Your task to perform on an android device: Open the phone app and click the voicemail tab. Image 0: 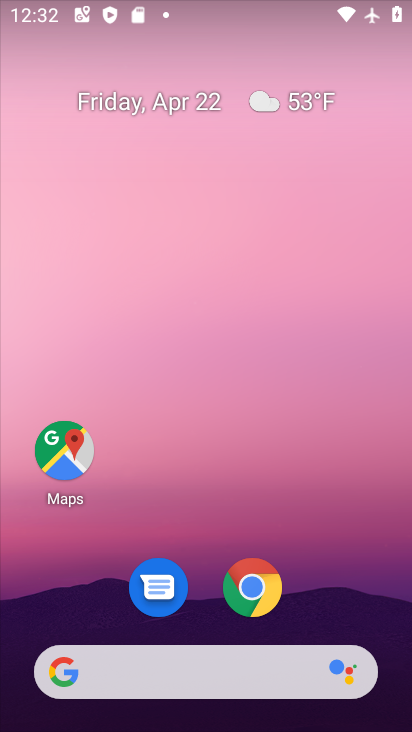
Step 0: drag from (201, 617) to (277, 97)
Your task to perform on an android device: Open the phone app and click the voicemail tab. Image 1: 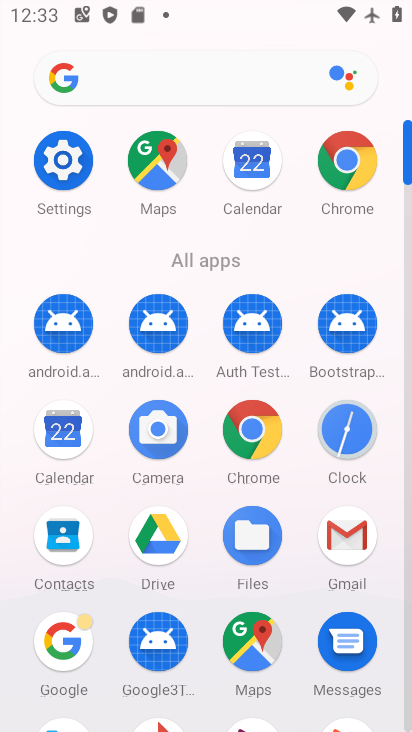
Step 1: drag from (181, 567) to (311, 122)
Your task to perform on an android device: Open the phone app and click the voicemail tab. Image 2: 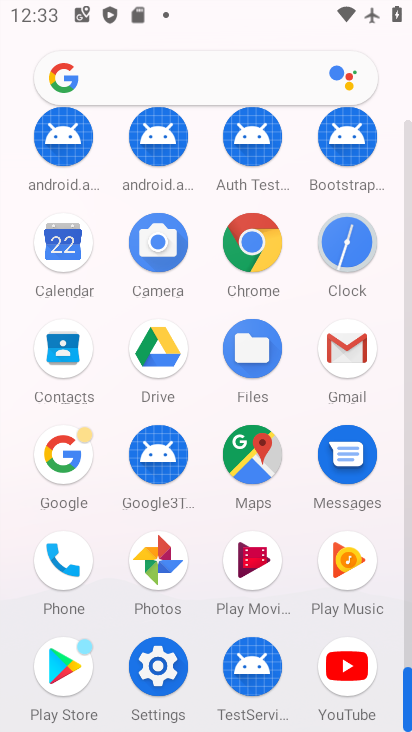
Step 2: click (60, 574)
Your task to perform on an android device: Open the phone app and click the voicemail tab. Image 3: 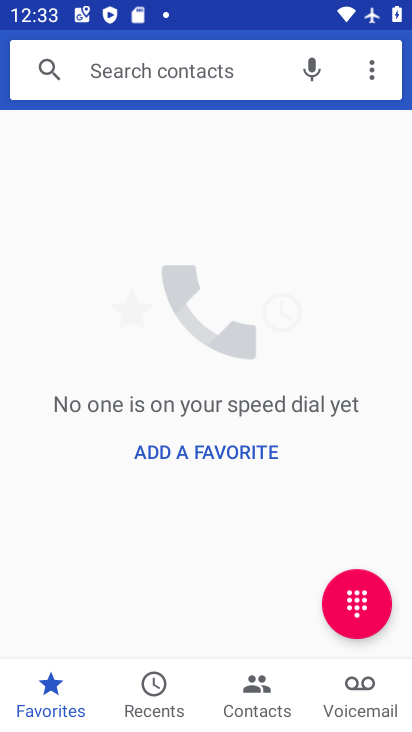
Step 3: click (375, 702)
Your task to perform on an android device: Open the phone app and click the voicemail tab. Image 4: 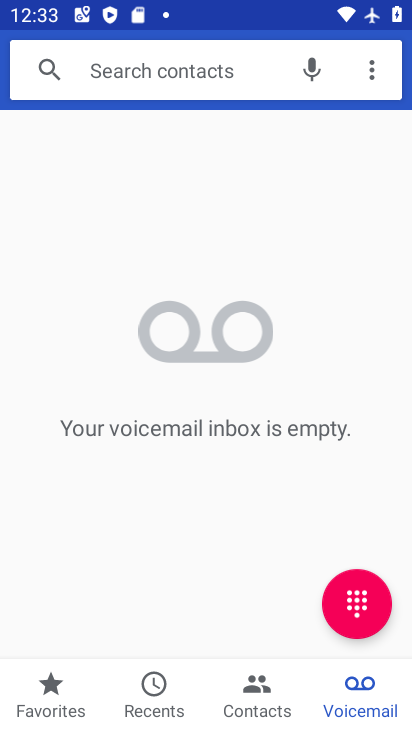
Step 4: task complete